Your task to perform on an android device: delete browsing data in the chrome app Image 0: 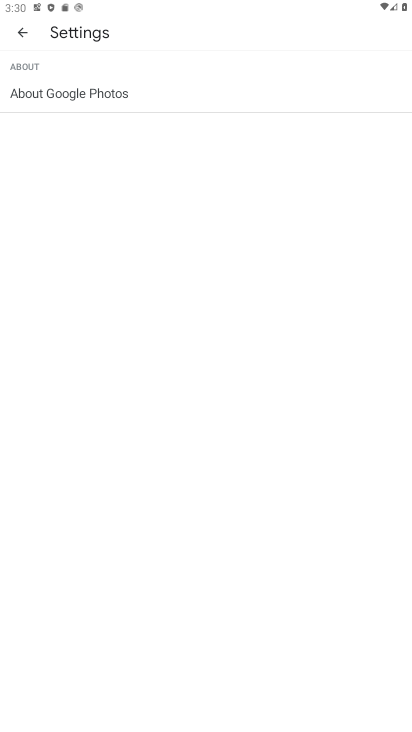
Step 0: press home button
Your task to perform on an android device: delete browsing data in the chrome app Image 1: 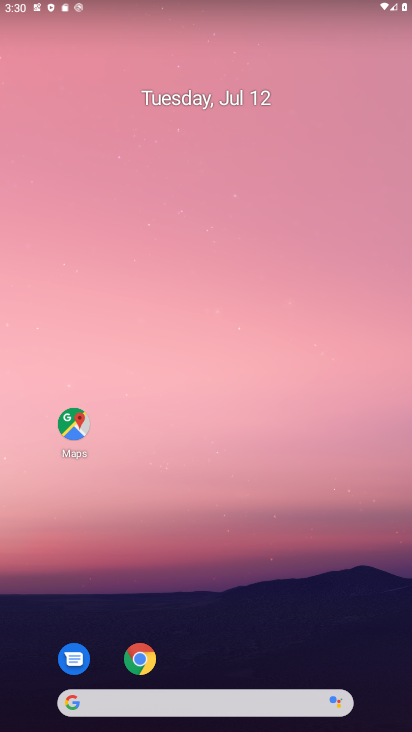
Step 1: click (134, 657)
Your task to perform on an android device: delete browsing data in the chrome app Image 2: 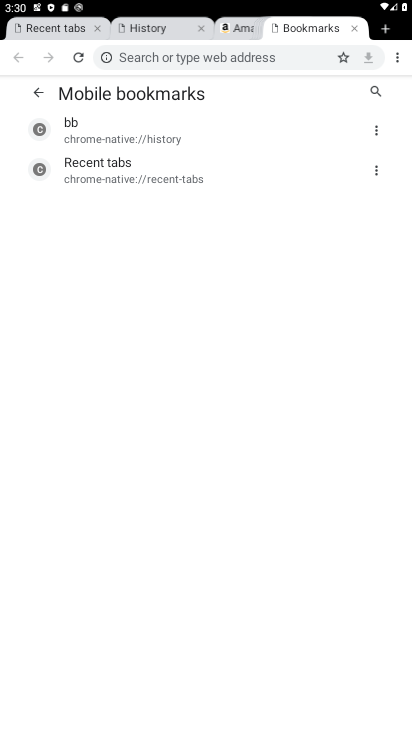
Step 2: click (397, 57)
Your task to perform on an android device: delete browsing data in the chrome app Image 3: 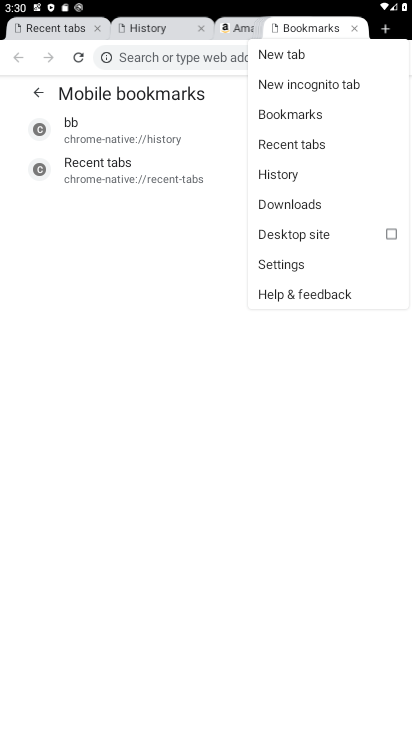
Step 3: click (283, 172)
Your task to perform on an android device: delete browsing data in the chrome app Image 4: 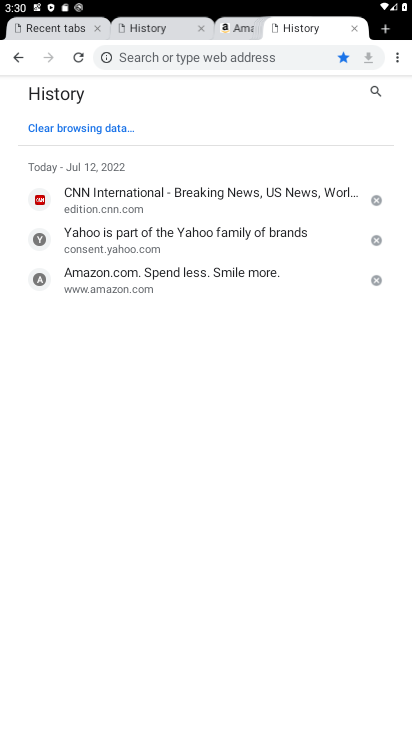
Step 4: click (61, 126)
Your task to perform on an android device: delete browsing data in the chrome app Image 5: 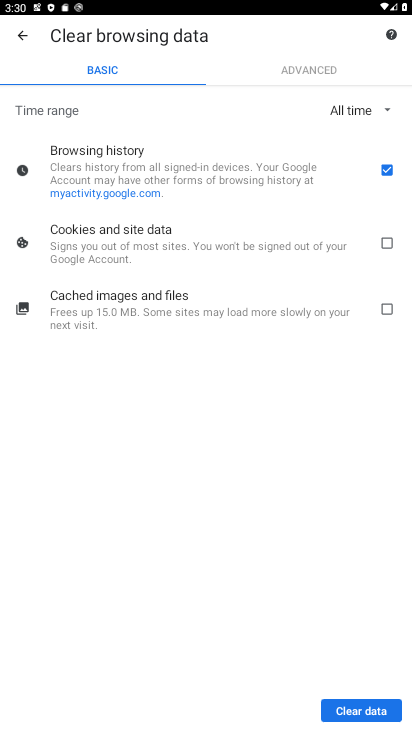
Step 5: click (370, 708)
Your task to perform on an android device: delete browsing data in the chrome app Image 6: 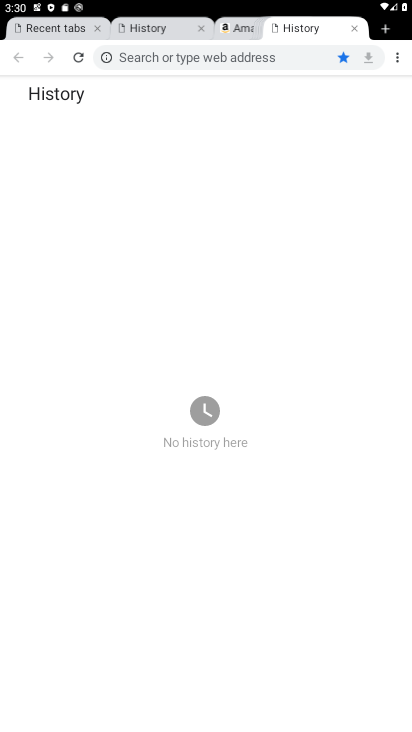
Step 6: task complete